Your task to perform on an android device: Add "logitech g pro" to the cart on ebay Image 0: 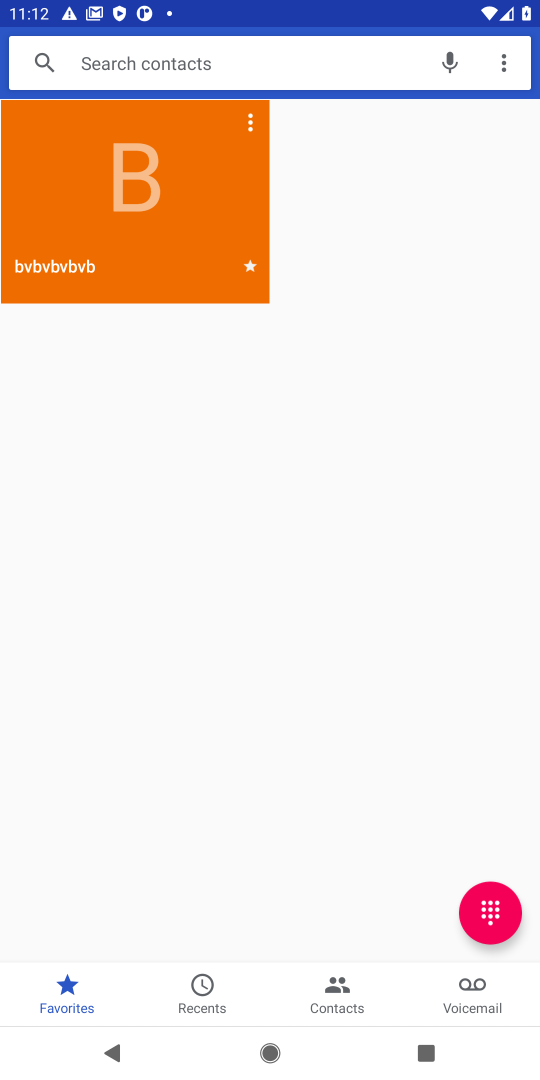
Step 0: press home button
Your task to perform on an android device: Add "logitech g pro" to the cart on ebay Image 1: 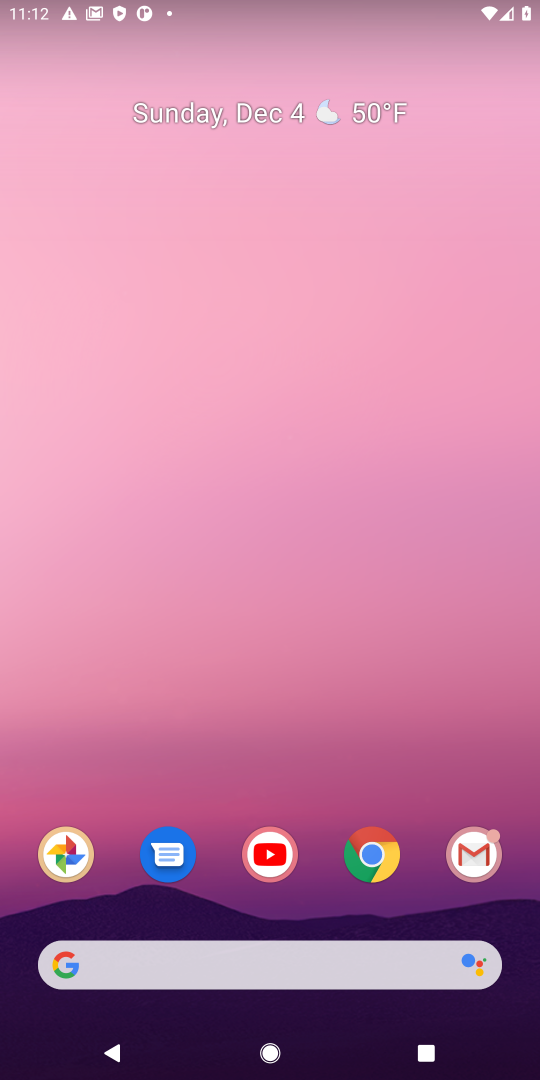
Step 1: click (243, 954)
Your task to perform on an android device: Add "logitech g pro" to the cart on ebay Image 2: 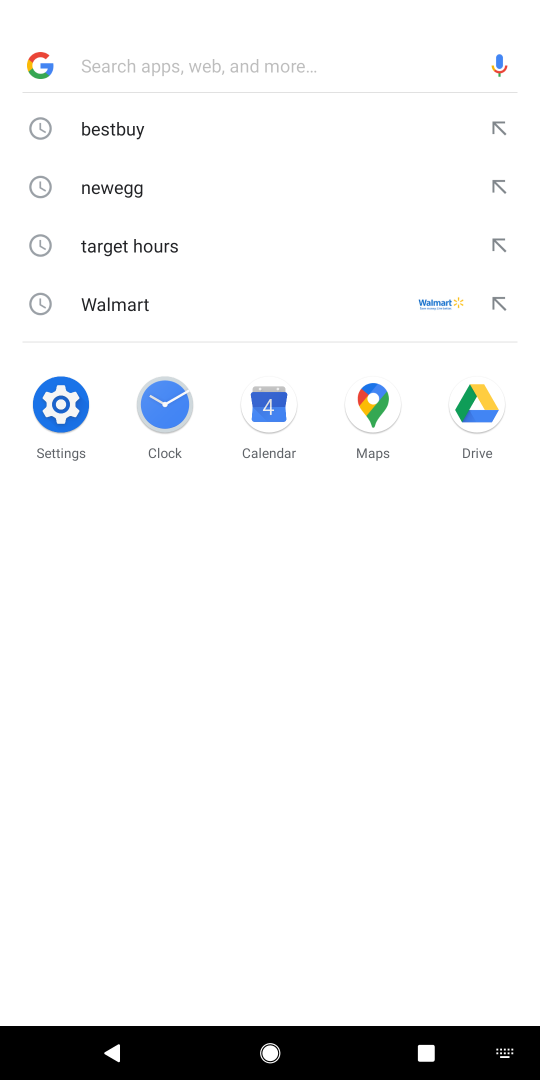
Step 2: type "ebay"
Your task to perform on an android device: Add "logitech g pro" to the cart on ebay Image 3: 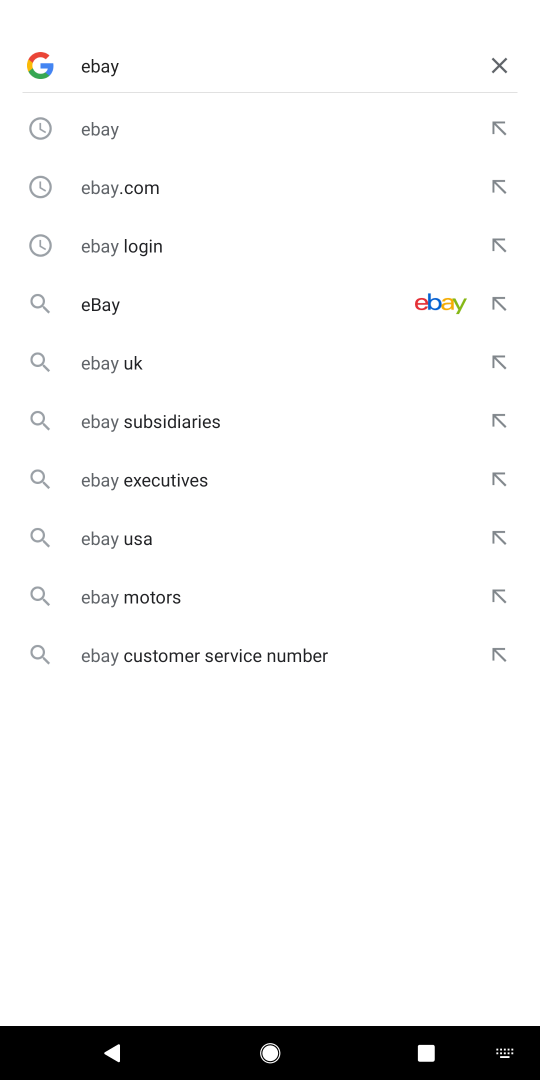
Step 3: click (197, 313)
Your task to perform on an android device: Add "logitech g pro" to the cart on ebay Image 4: 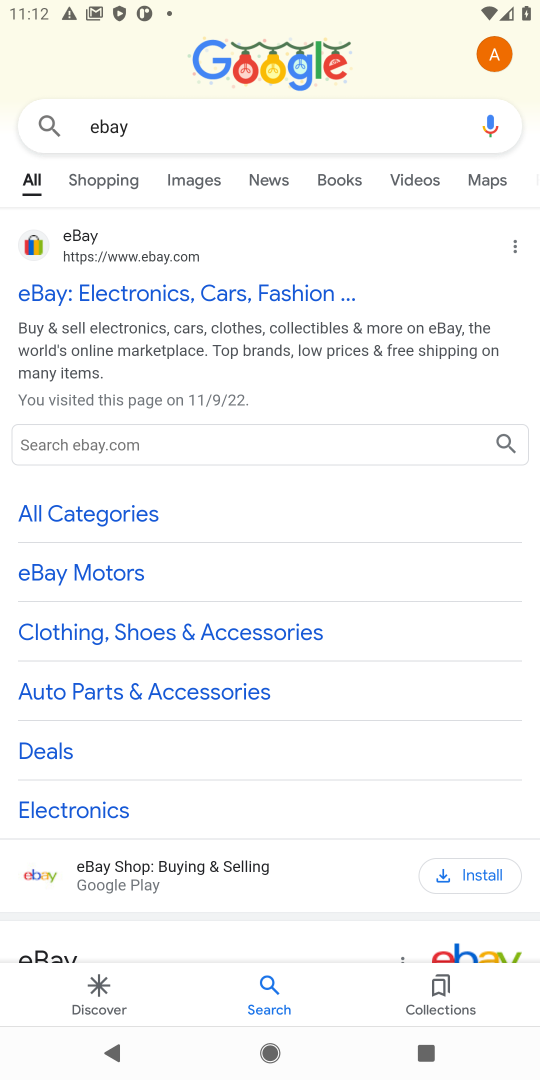
Step 4: click (197, 313)
Your task to perform on an android device: Add "logitech g pro" to the cart on ebay Image 5: 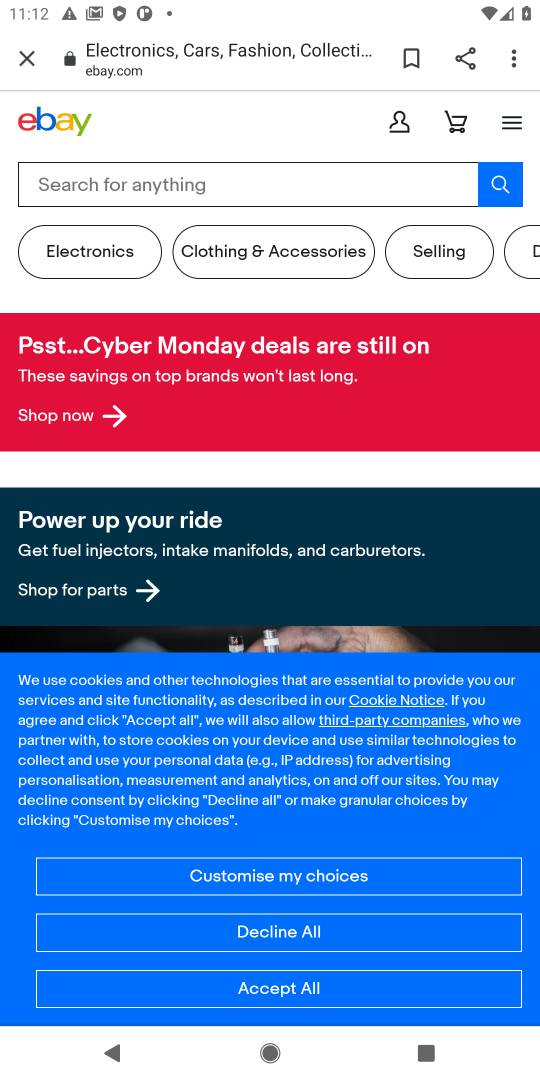
Step 5: click (167, 197)
Your task to perform on an android device: Add "logitech g pro" to the cart on ebay Image 6: 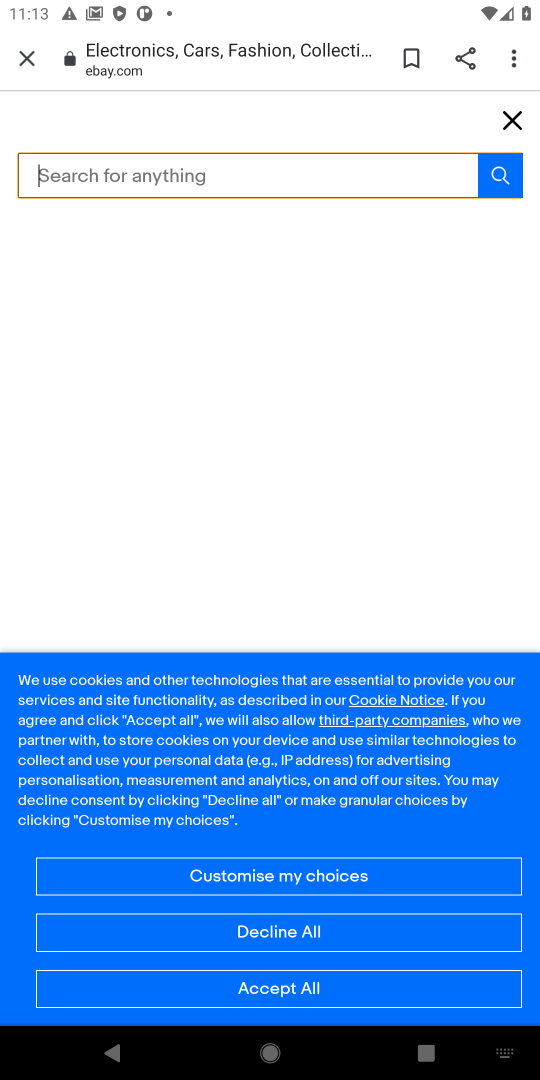
Step 6: type "logitech g pro"
Your task to perform on an android device: Add "logitech g pro" to the cart on ebay Image 7: 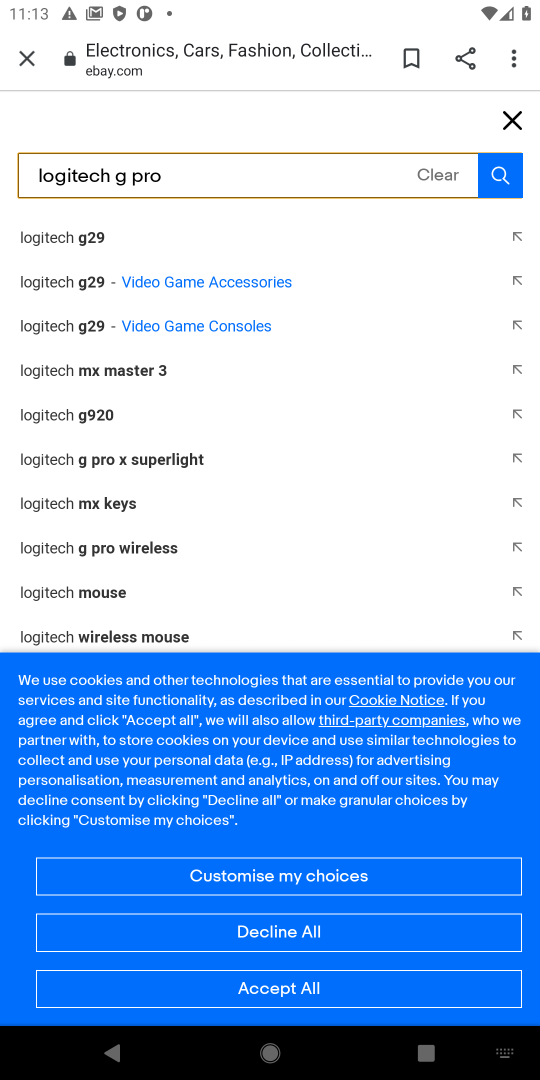
Step 7: click (40, 238)
Your task to perform on an android device: Add "logitech g pro" to the cart on ebay Image 8: 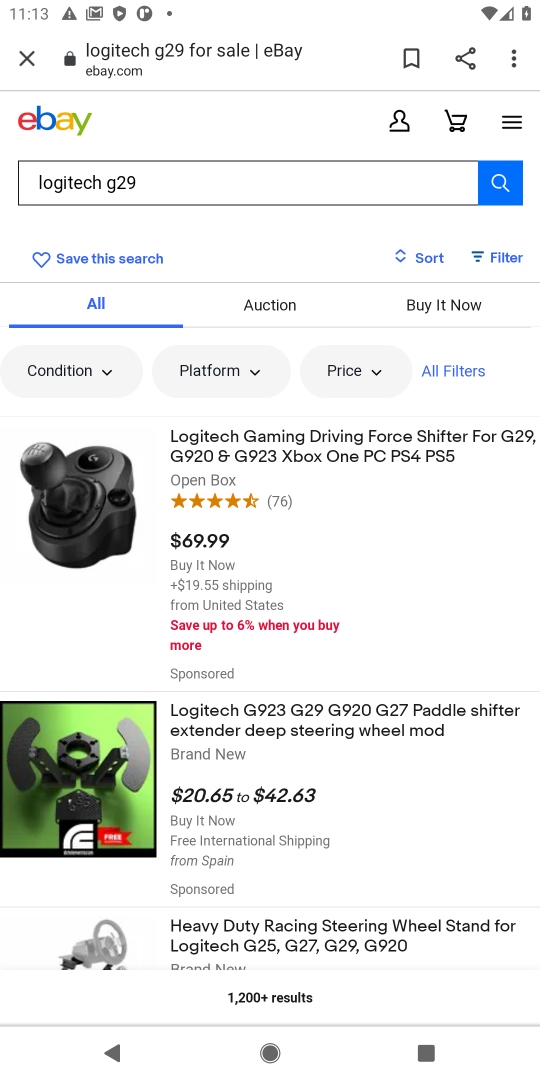
Step 8: click (264, 491)
Your task to perform on an android device: Add "logitech g pro" to the cart on ebay Image 9: 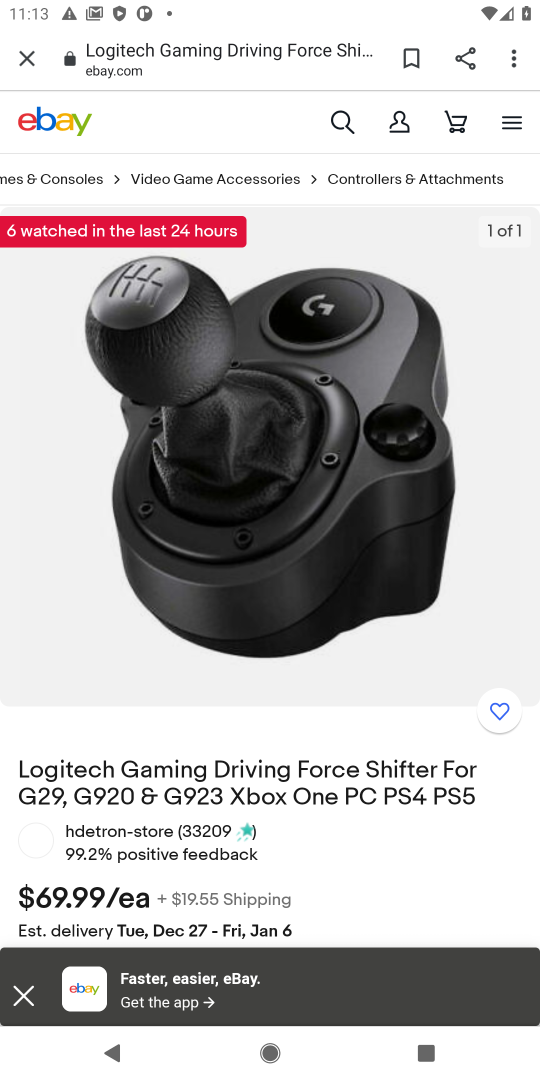
Step 9: task complete